Your task to perform on an android device: Open Amazon Image 0: 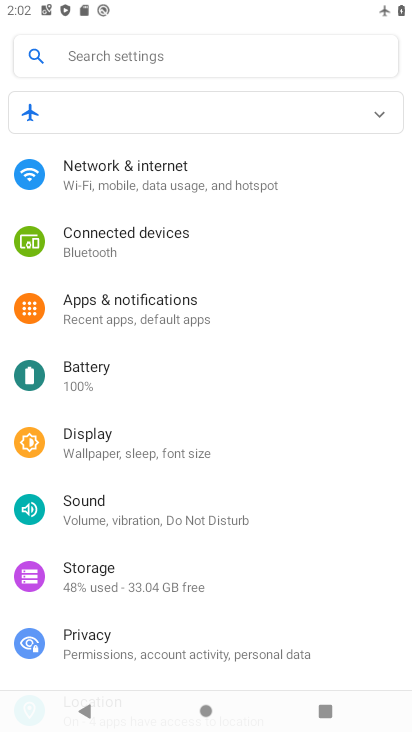
Step 0: press home button
Your task to perform on an android device: Open Amazon Image 1: 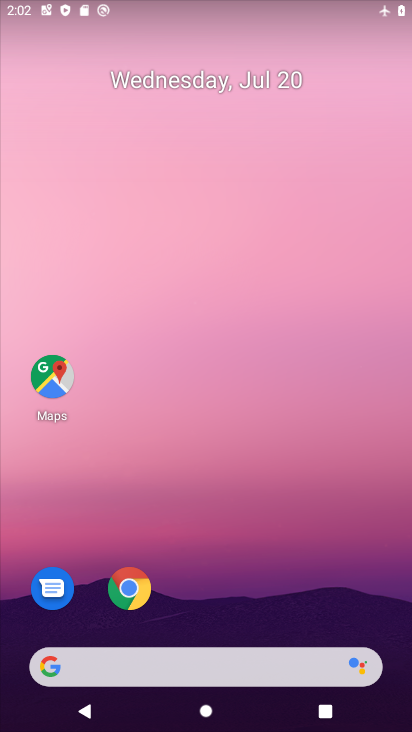
Step 1: drag from (253, 586) to (343, 90)
Your task to perform on an android device: Open Amazon Image 2: 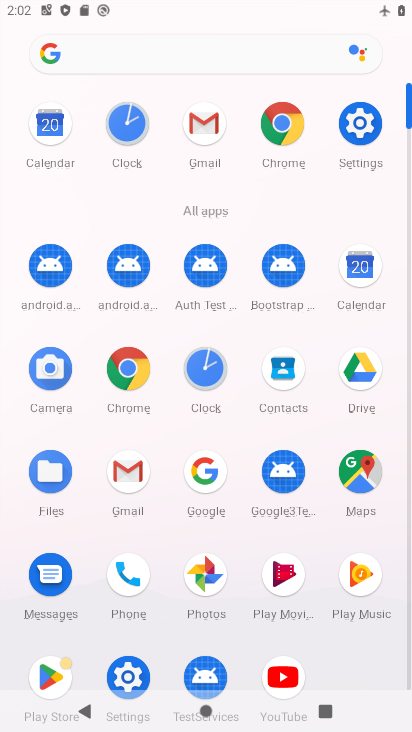
Step 2: click (300, 134)
Your task to perform on an android device: Open Amazon Image 3: 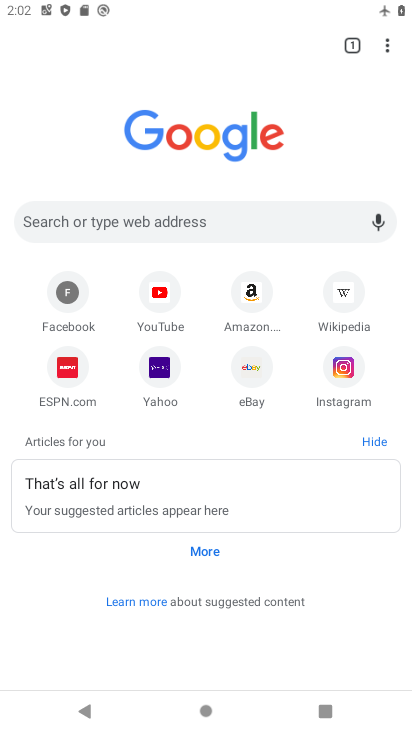
Step 3: click (260, 293)
Your task to perform on an android device: Open Amazon Image 4: 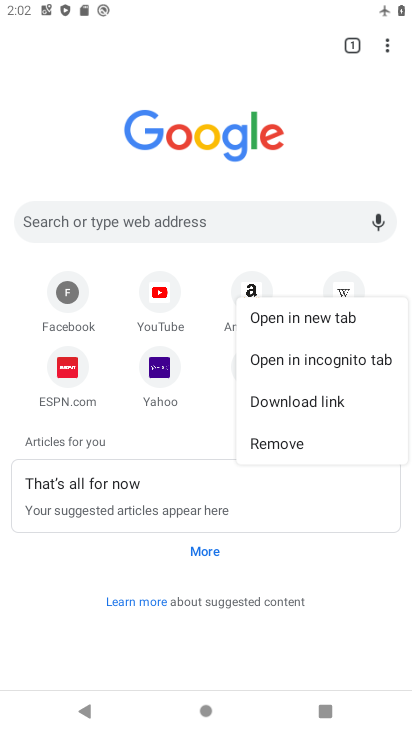
Step 4: click (248, 288)
Your task to perform on an android device: Open Amazon Image 5: 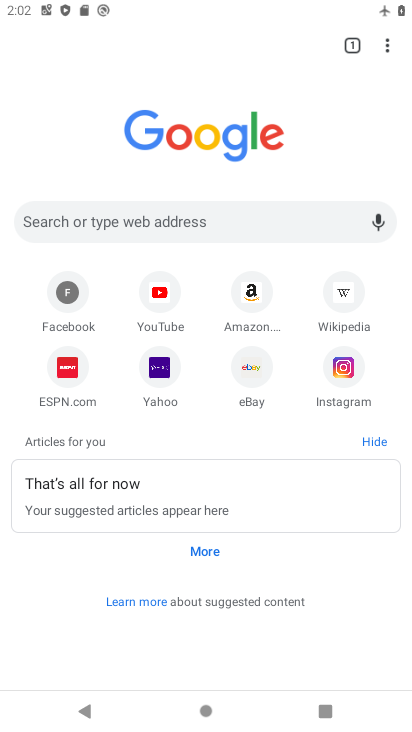
Step 5: click (254, 301)
Your task to perform on an android device: Open Amazon Image 6: 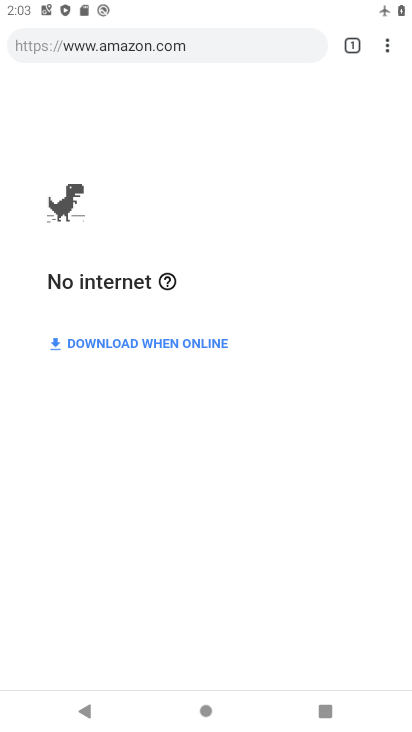
Step 6: task complete